Your task to perform on an android device: Go to location settings Image 0: 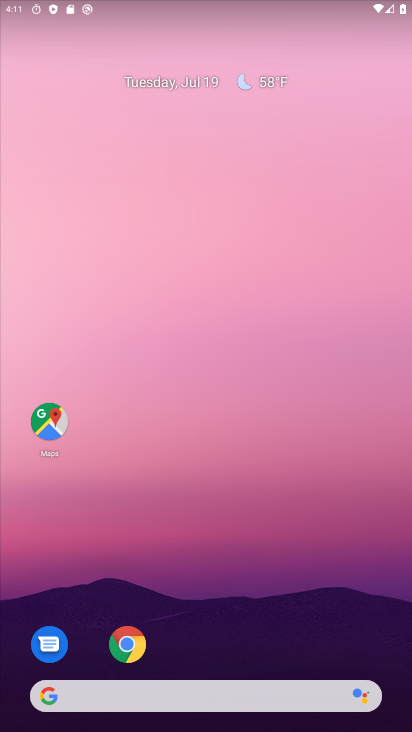
Step 0: drag from (293, 571) to (254, 107)
Your task to perform on an android device: Go to location settings Image 1: 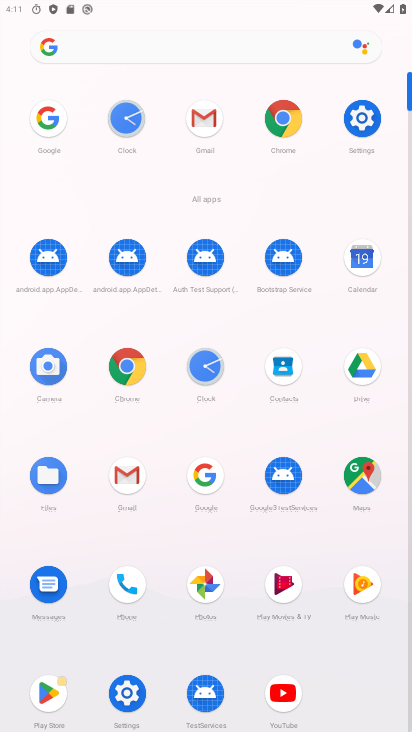
Step 1: click (368, 112)
Your task to perform on an android device: Go to location settings Image 2: 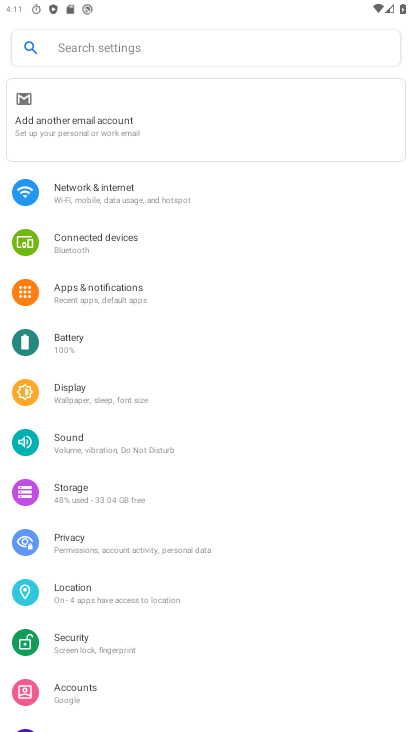
Step 2: click (166, 603)
Your task to perform on an android device: Go to location settings Image 3: 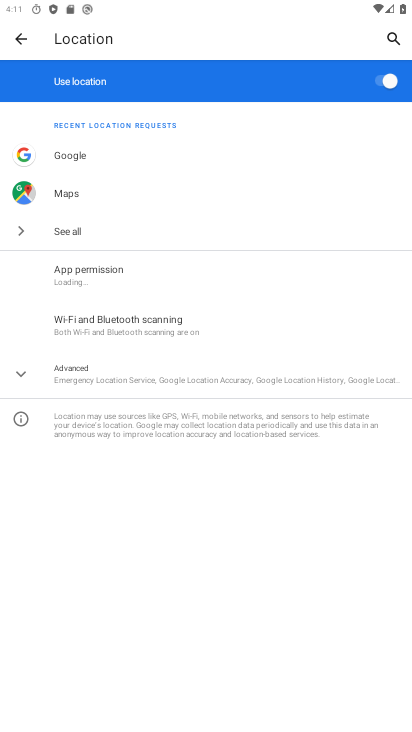
Step 3: task complete